Your task to perform on an android device: change the clock display to analog Image 0: 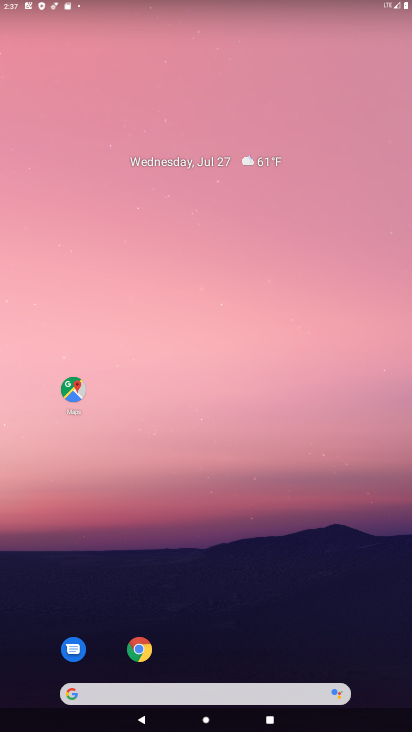
Step 0: drag from (163, 534) to (188, 125)
Your task to perform on an android device: change the clock display to analog Image 1: 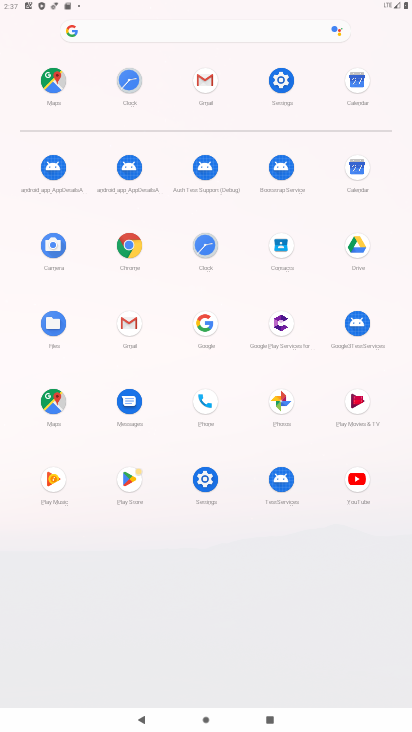
Step 1: click (196, 259)
Your task to perform on an android device: change the clock display to analog Image 2: 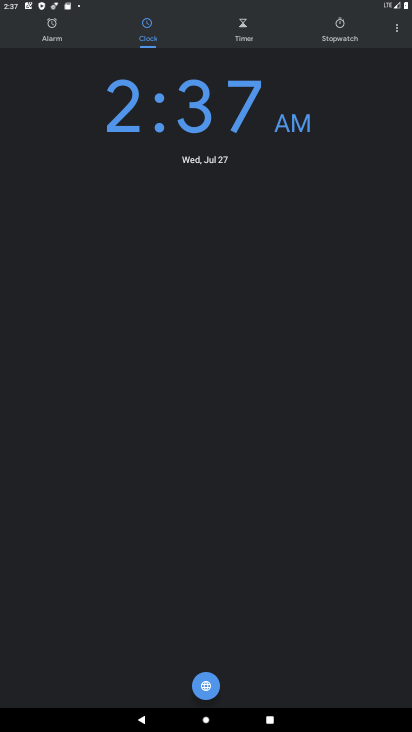
Step 2: click (396, 30)
Your task to perform on an android device: change the clock display to analog Image 3: 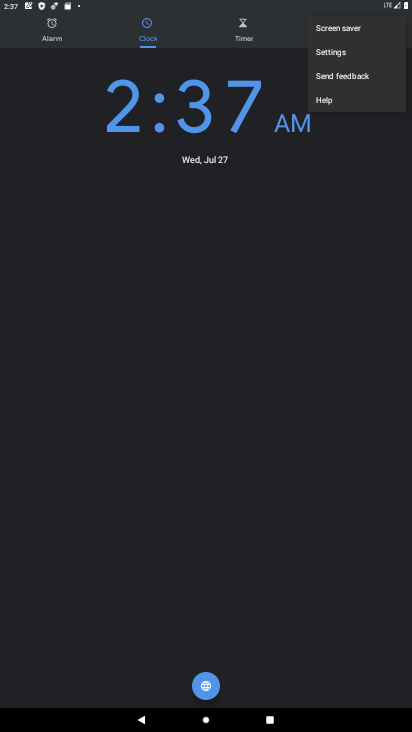
Step 3: click (339, 50)
Your task to perform on an android device: change the clock display to analog Image 4: 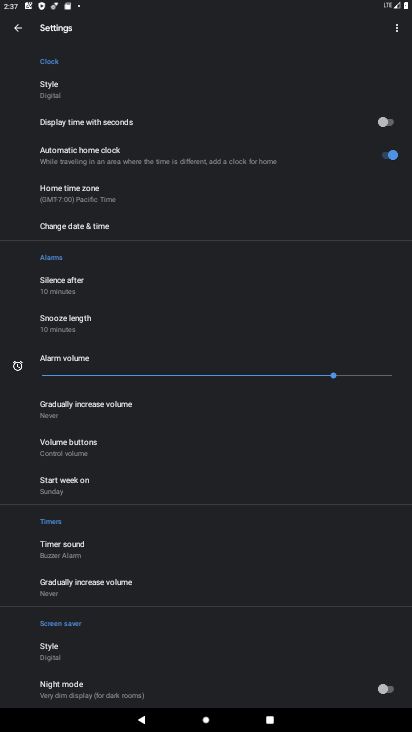
Step 4: click (48, 87)
Your task to perform on an android device: change the clock display to analog Image 5: 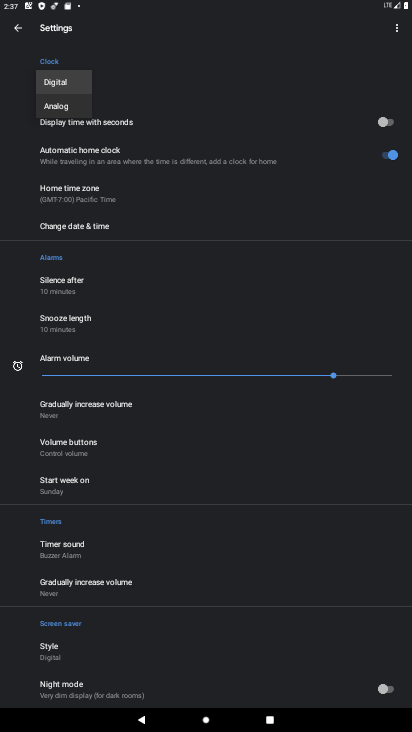
Step 5: click (60, 113)
Your task to perform on an android device: change the clock display to analog Image 6: 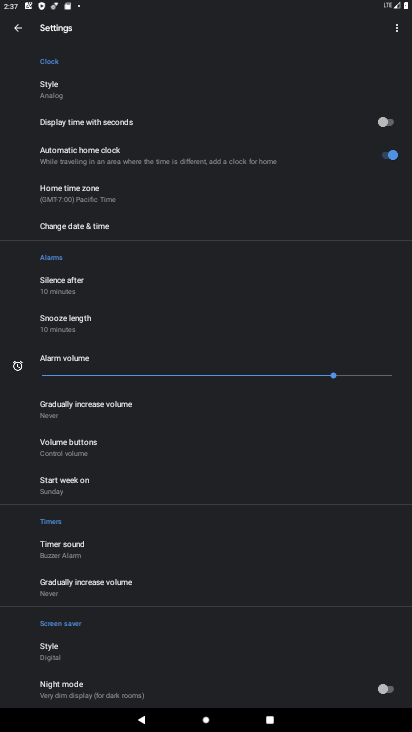
Step 6: task complete